Your task to perform on an android device: Add dell xps to the cart on costco, then select checkout. Image 0: 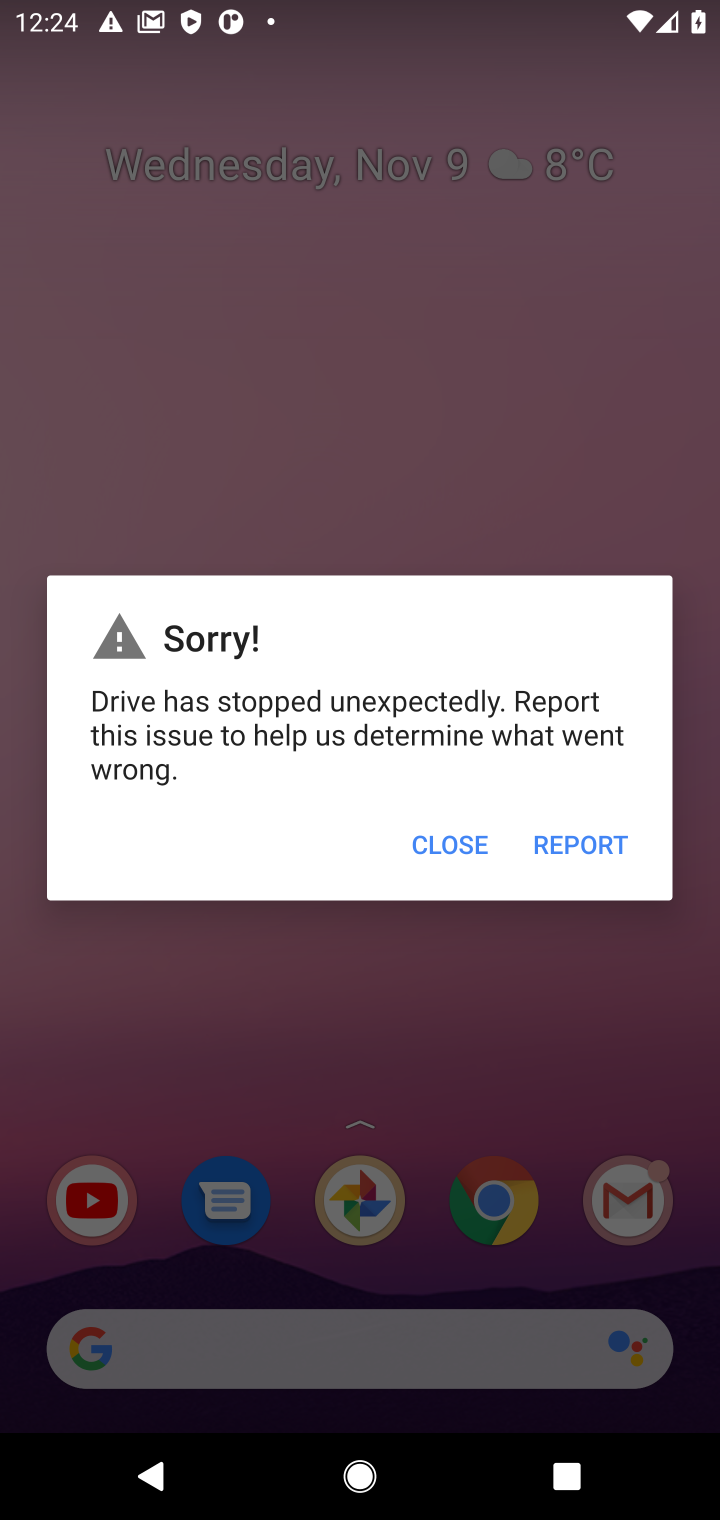
Step 0: click (438, 822)
Your task to perform on an android device: Add dell xps to the cart on costco, then select checkout. Image 1: 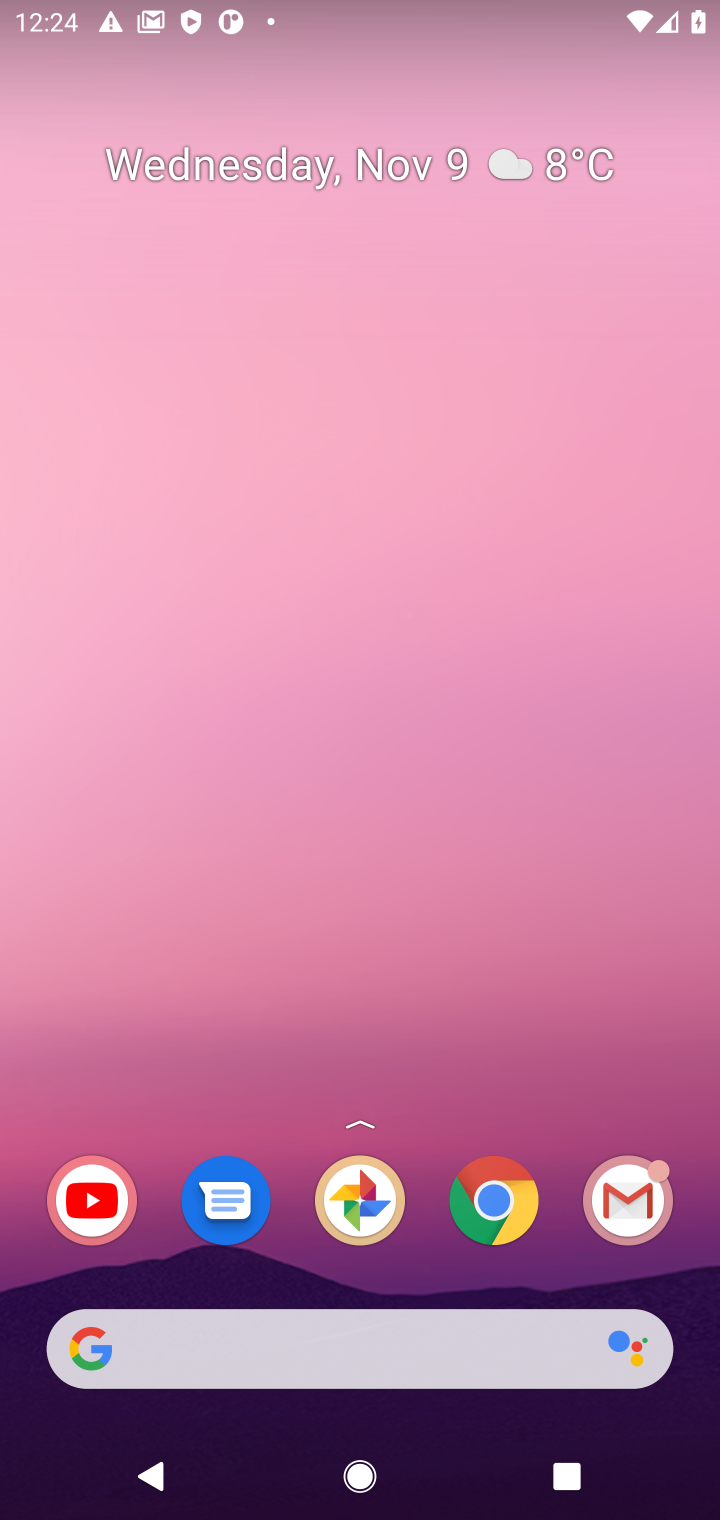
Step 1: click (408, 1393)
Your task to perform on an android device: Add dell xps to the cart on costco, then select checkout. Image 2: 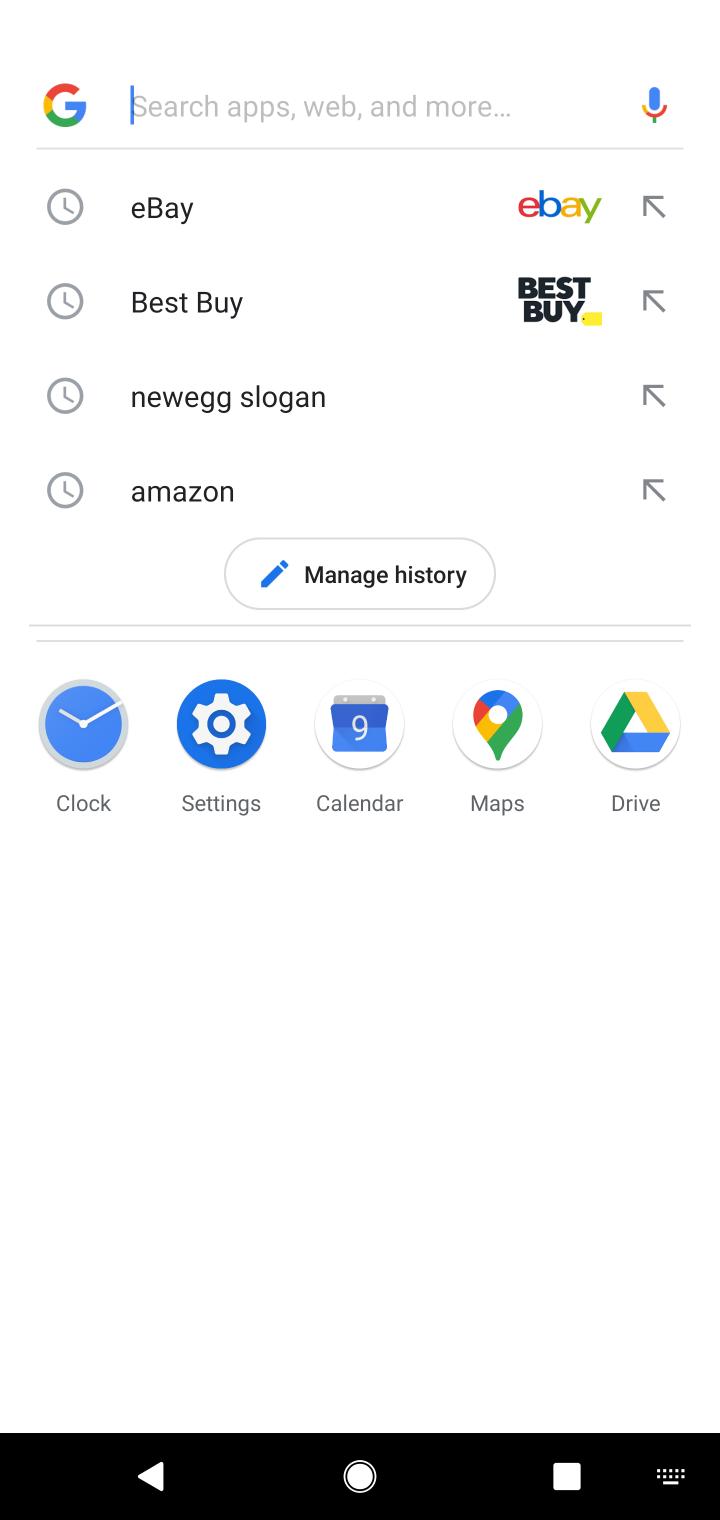
Step 2: type "costco"
Your task to perform on an android device: Add dell xps to the cart on costco, then select checkout. Image 3: 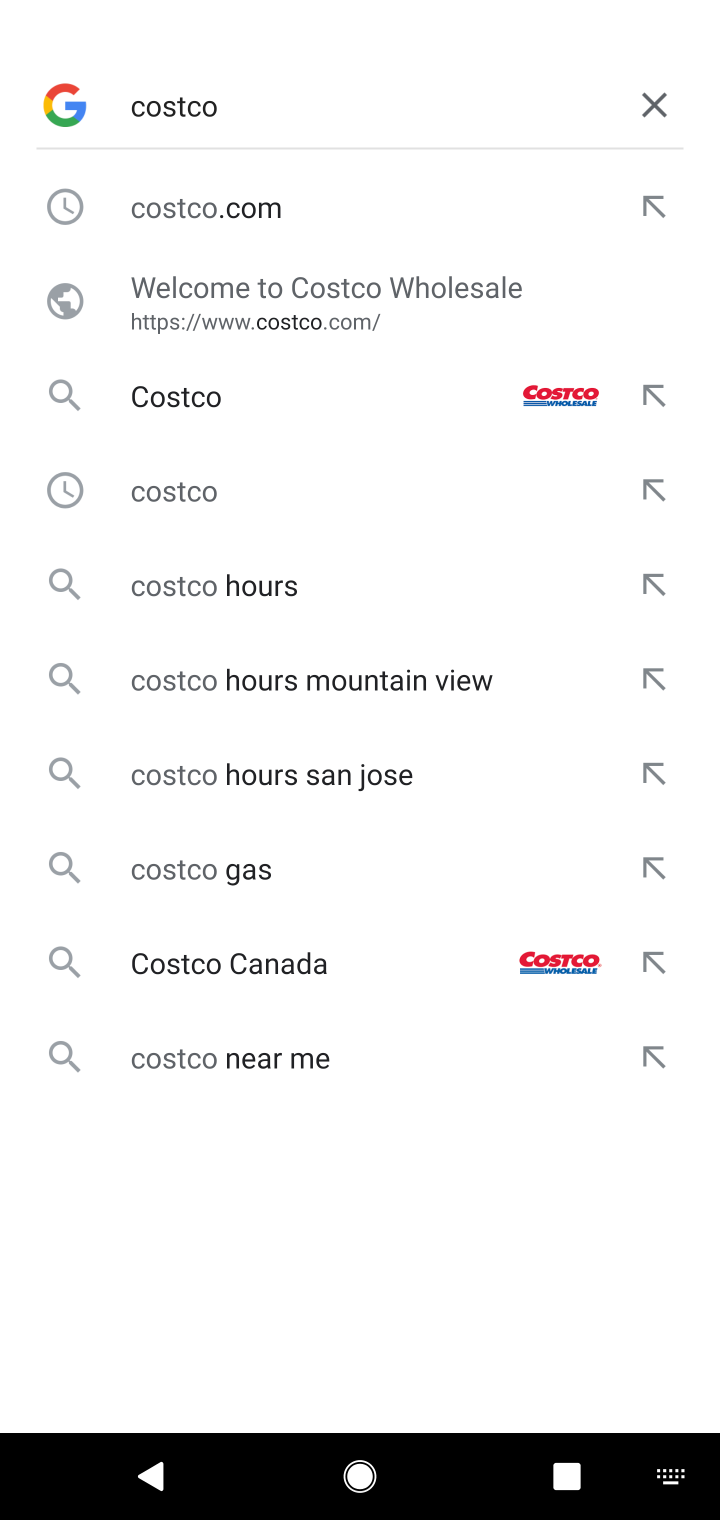
Step 3: click (230, 428)
Your task to perform on an android device: Add dell xps to the cart on costco, then select checkout. Image 4: 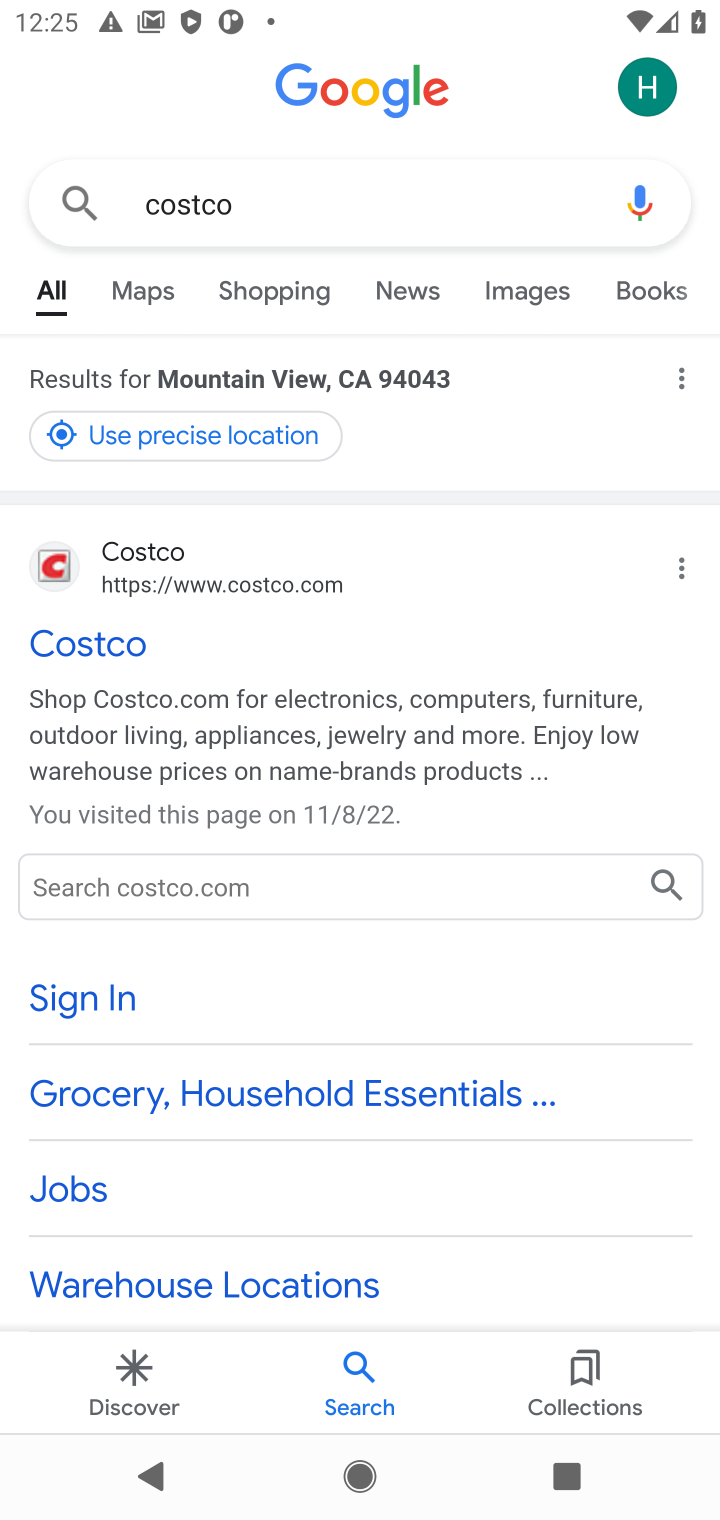
Step 4: click (128, 687)
Your task to perform on an android device: Add dell xps to the cart on costco, then select checkout. Image 5: 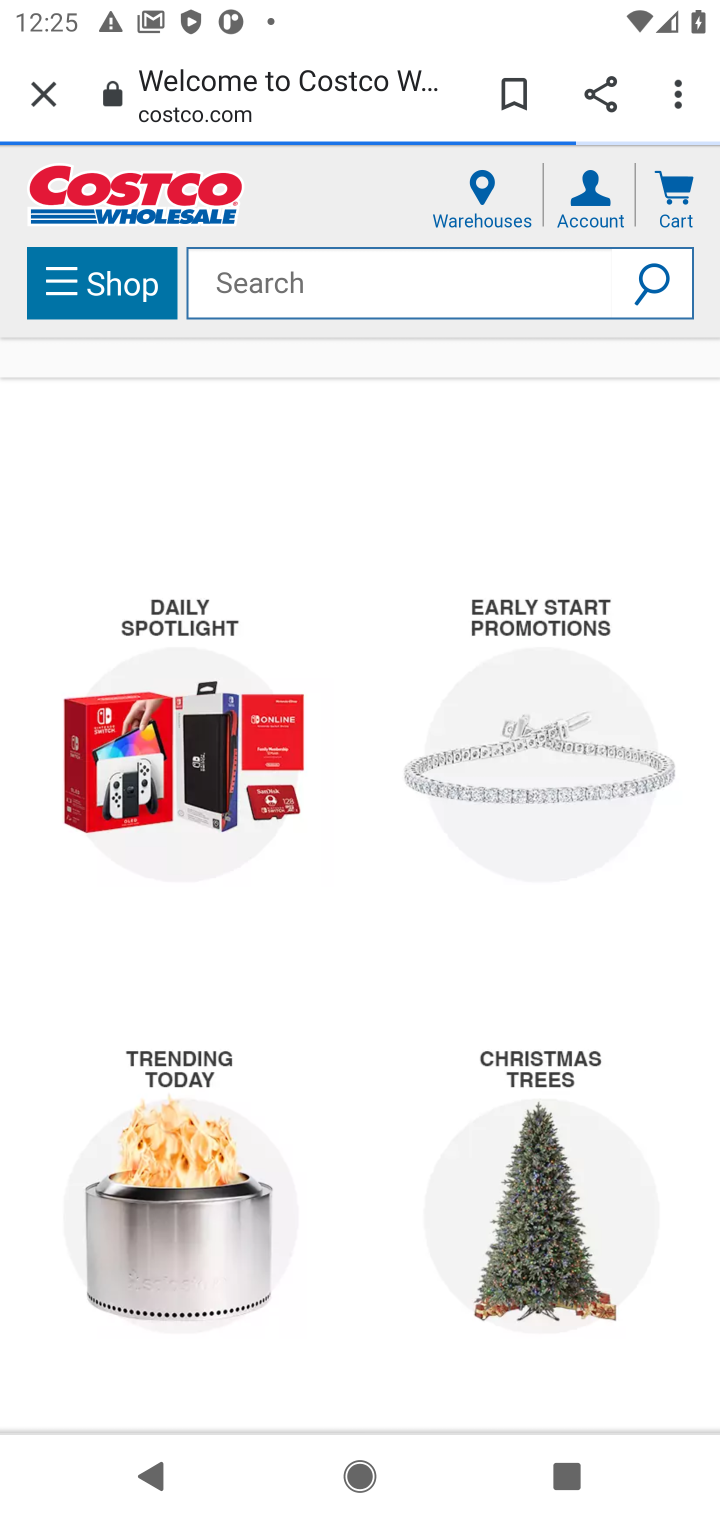
Step 5: task complete